Your task to perform on an android device: turn off data saver in the chrome app Image 0: 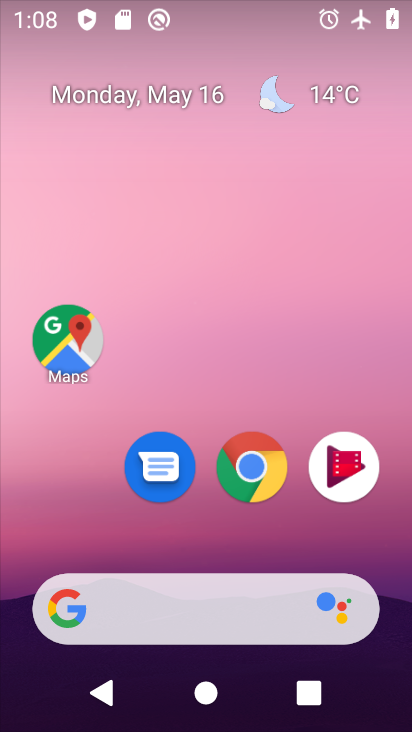
Step 0: drag from (212, 412) to (237, 269)
Your task to perform on an android device: turn off data saver in the chrome app Image 1: 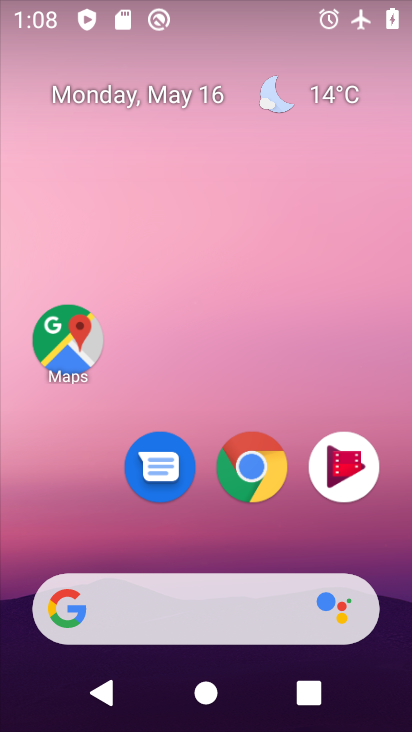
Step 1: drag from (180, 532) to (251, 120)
Your task to perform on an android device: turn off data saver in the chrome app Image 2: 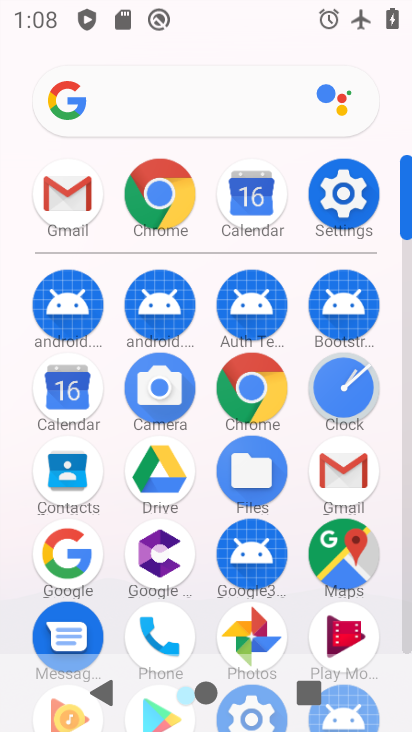
Step 2: click (163, 195)
Your task to perform on an android device: turn off data saver in the chrome app Image 3: 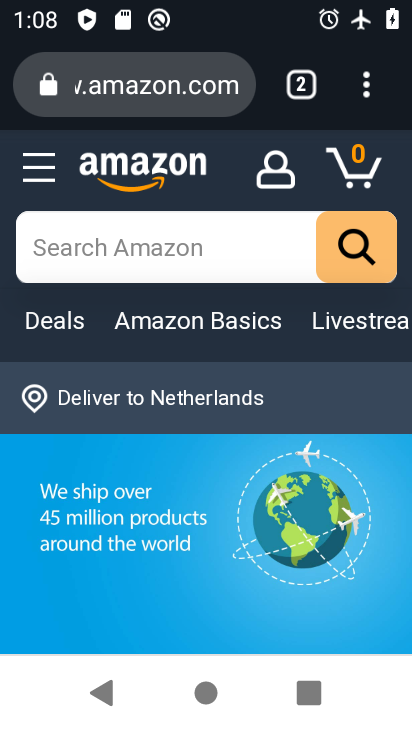
Step 3: click (363, 86)
Your task to perform on an android device: turn off data saver in the chrome app Image 4: 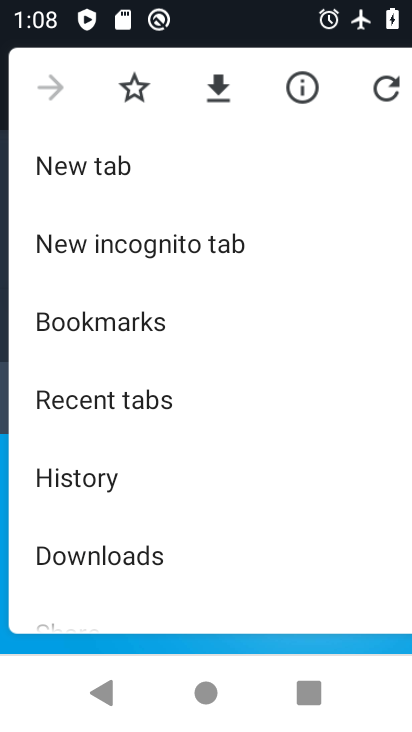
Step 4: drag from (226, 554) to (259, 182)
Your task to perform on an android device: turn off data saver in the chrome app Image 5: 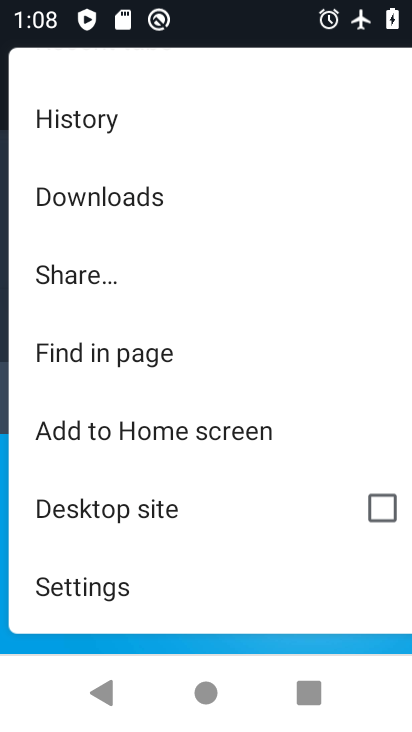
Step 5: click (108, 582)
Your task to perform on an android device: turn off data saver in the chrome app Image 6: 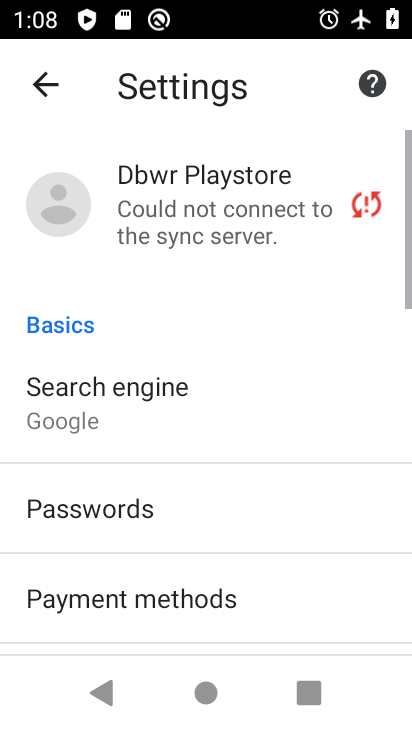
Step 6: drag from (191, 547) to (209, 178)
Your task to perform on an android device: turn off data saver in the chrome app Image 7: 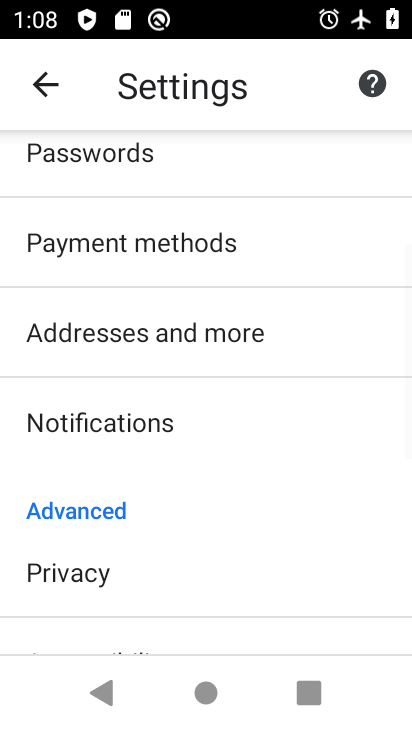
Step 7: drag from (154, 514) to (235, 164)
Your task to perform on an android device: turn off data saver in the chrome app Image 8: 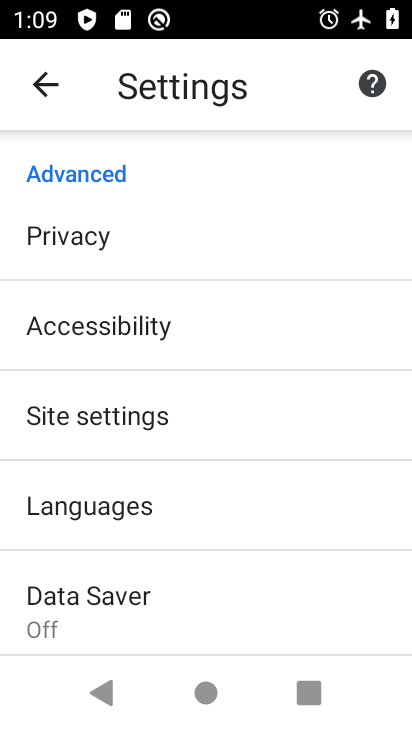
Step 8: click (151, 608)
Your task to perform on an android device: turn off data saver in the chrome app Image 9: 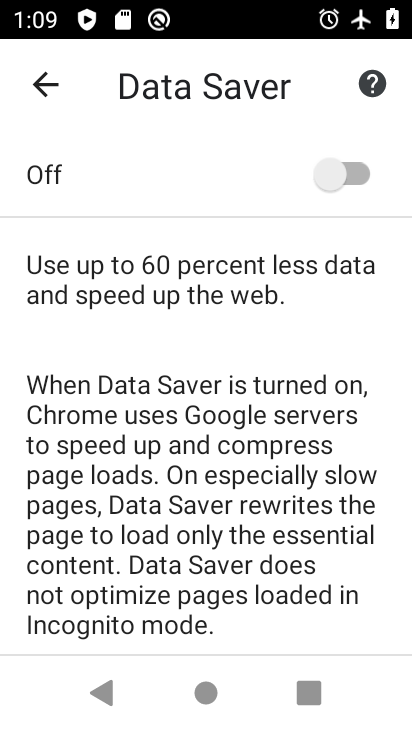
Step 9: task complete